Your task to perform on an android device: open app "Grab" (install if not already installed) and enter user name: "interspersion@gmail.com" and password: "aristocrats" Image 0: 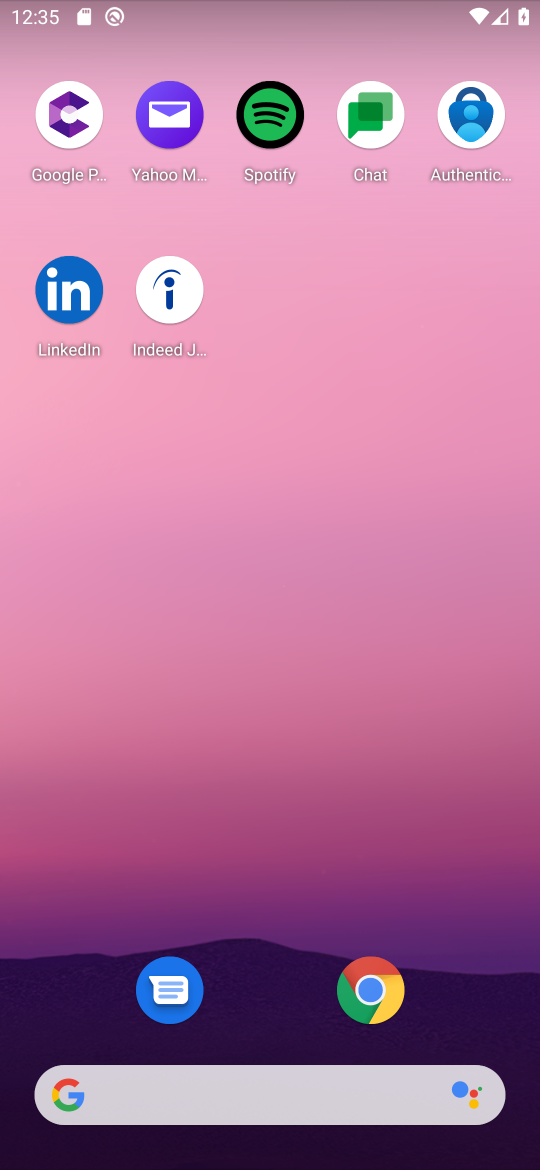
Step 0: drag from (276, 749) to (286, 251)
Your task to perform on an android device: open app "Grab" (install if not already installed) and enter user name: "interspersion@gmail.com" and password: "aristocrats" Image 1: 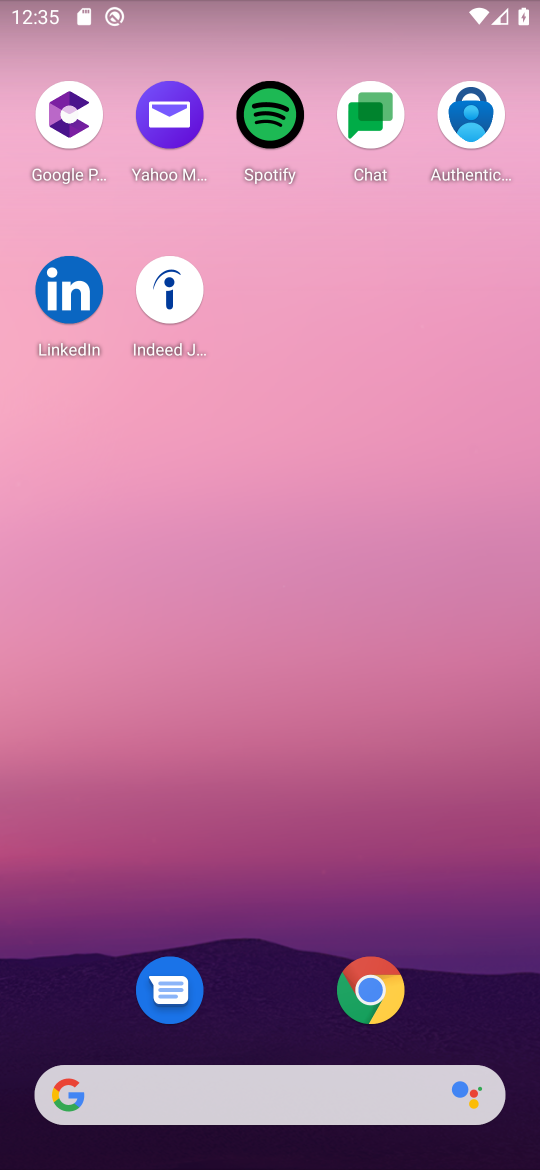
Step 1: drag from (285, 921) to (256, 174)
Your task to perform on an android device: open app "Grab" (install if not already installed) and enter user name: "interspersion@gmail.com" and password: "aristocrats" Image 2: 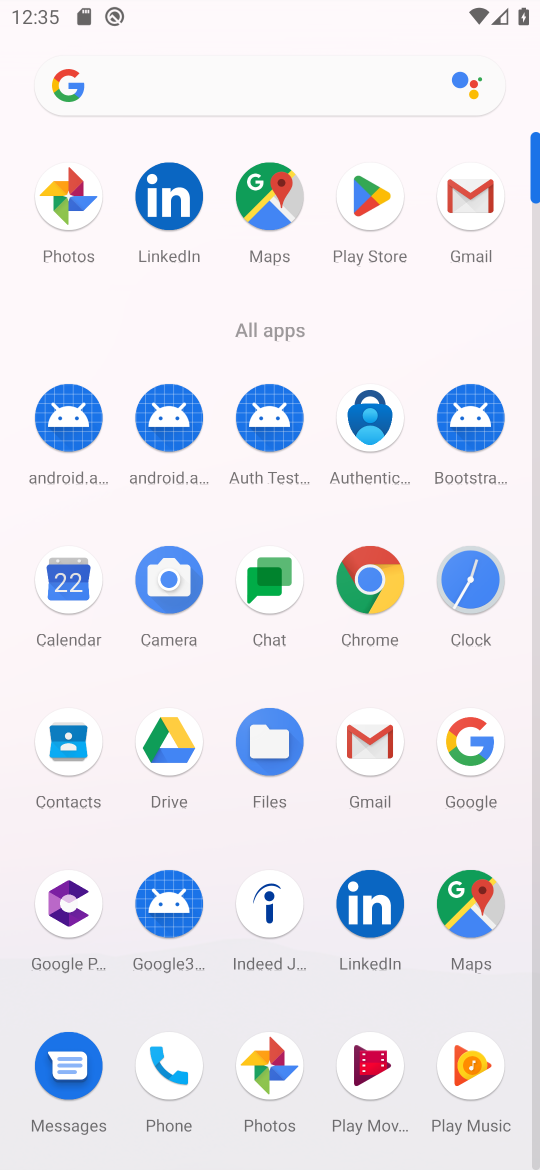
Step 2: click (370, 236)
Your task to perform on an android device: open app "Grab" (install if not already installed) and enter user name: "interspersion@gmail.com" and password: "aristocrats" Image 3: 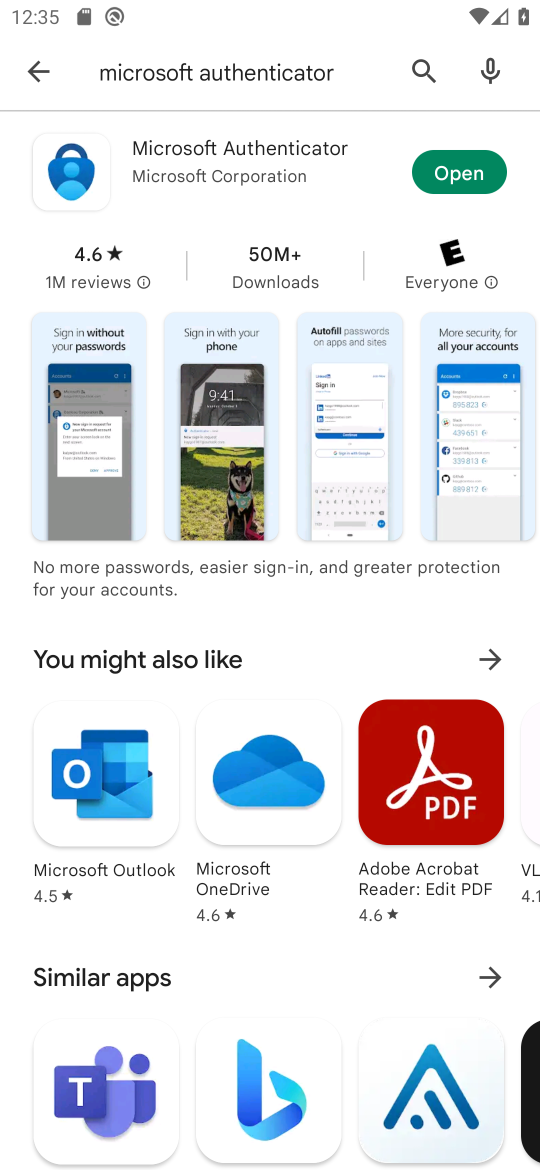
Step 3: click (423, 80)
Your task to perform on an android device: open app "Grab" (install if not already installed) and enter user name: "interspersion@gmail.com" and password: "aristocrats" Image 4: 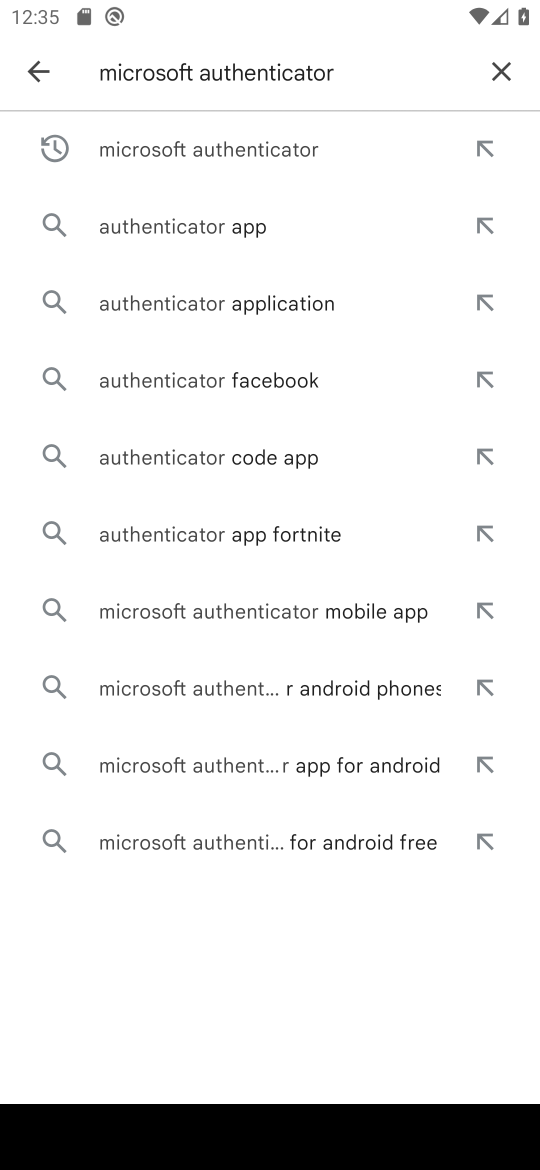
Step 4: click (500, 73)
Your task to perform on an android device: open app "Grab" (install if not already installed) and enter user name: "interspersion@gmail.com" and password: "aristocrats" Image 5: 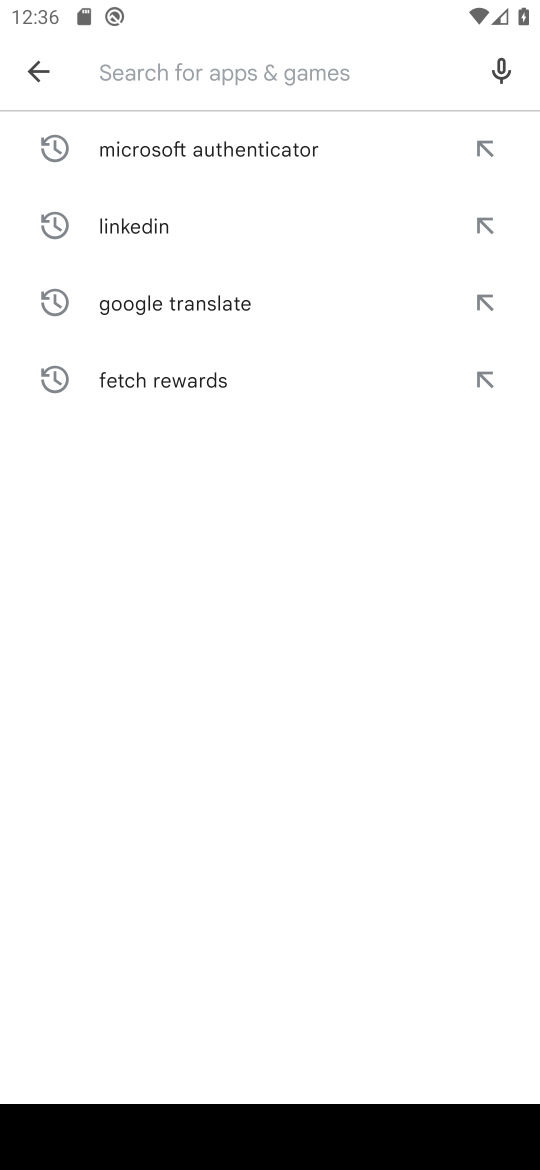
Step 5: type "Grab"
Your task to perform on an android device: open app "Grab" (install if not already installed) and enter user name: "interspersion@gmail.com" and password: "aristocrats" Image 6: 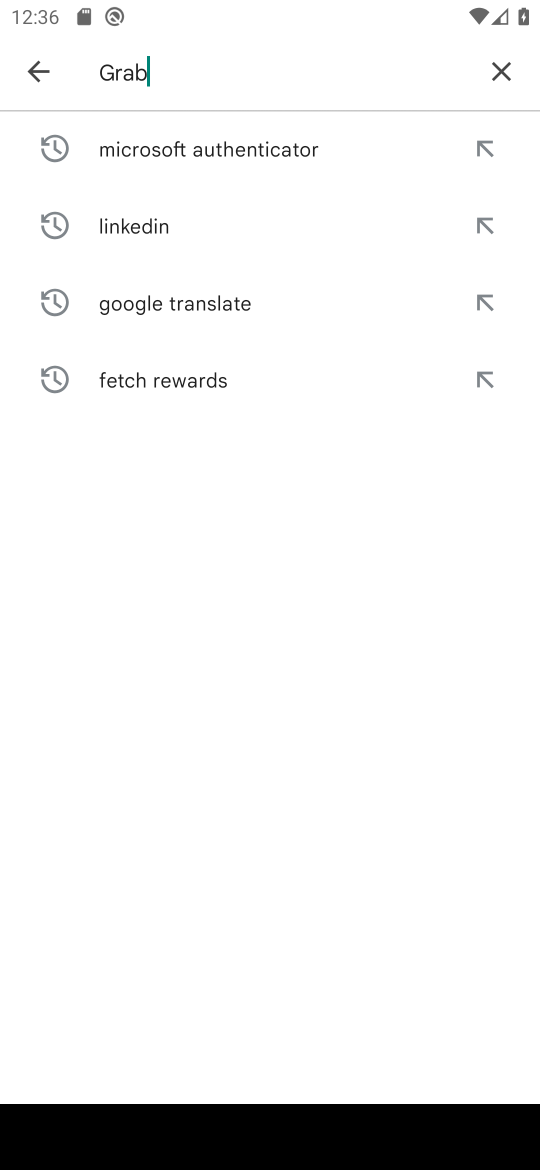
Step 6: type ""
Your task to perform on an android device: open app "Grab" (install if not already installed) and enter user name: "interspersion@gmail.com" and password: "aristocrats" Image 7: 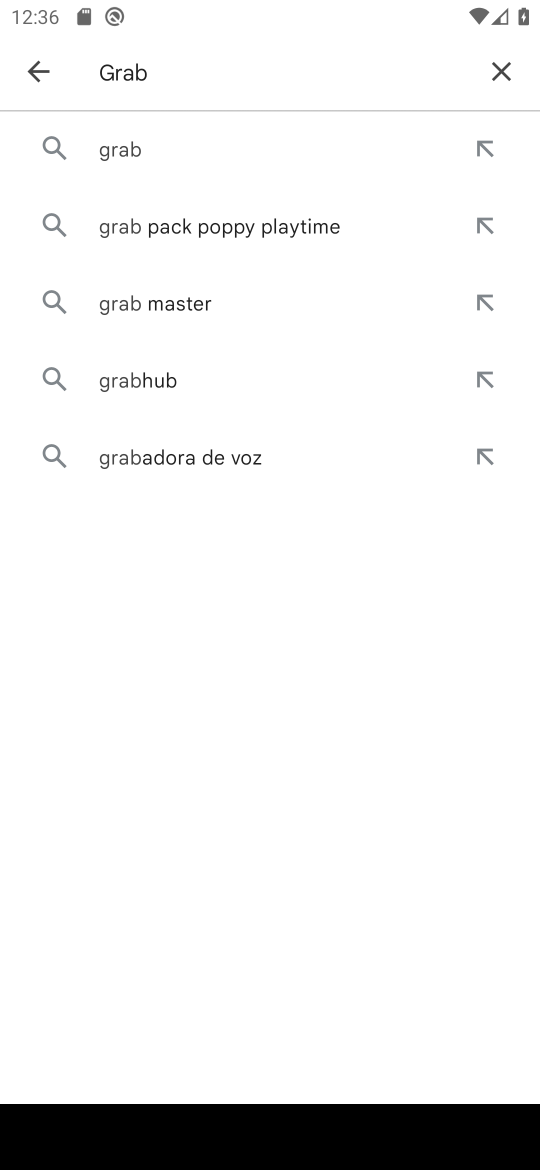
Step 7: click (135, 151)
Your task to perform on an android device: open app "Grab" (install if not already installed) and enter user name: "interspersion@gmail.com" and password: "aristocrats" Image 8: 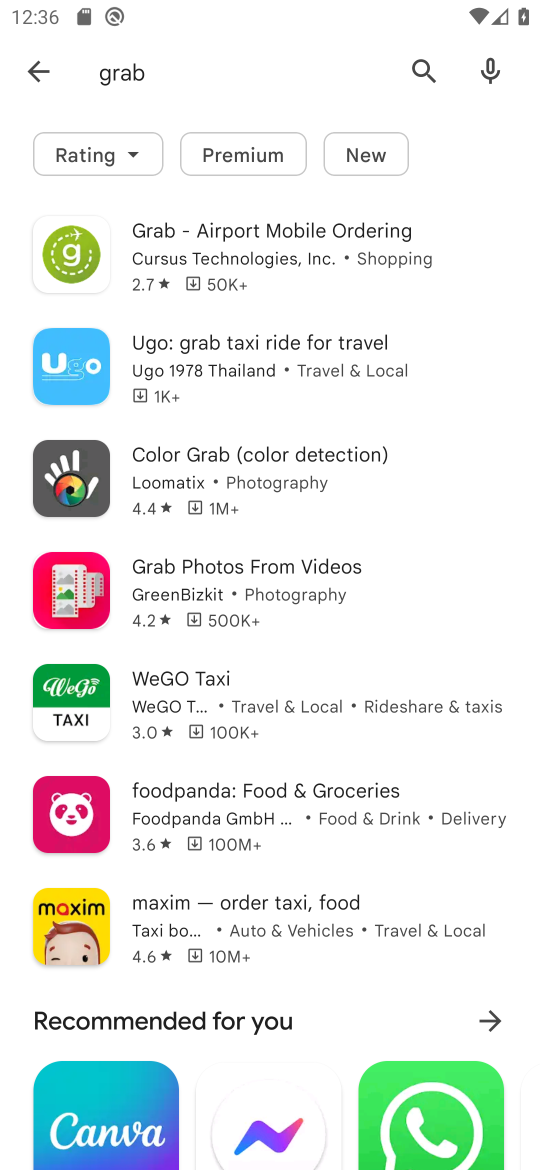
Step 8: click (289, 225)
Your task to perform on an android device: open app "Grab" (install if not already installed) and enter user name: "interspersion@gmail.com" and password: "aristocrats" Image 9: 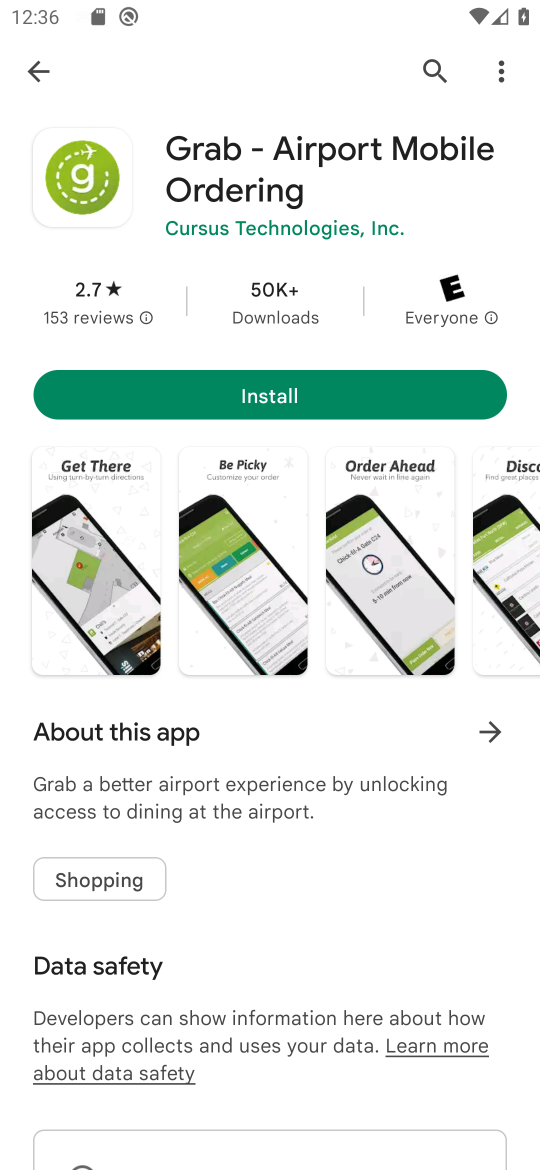
Step 9: click (345, 394)
Your task to perform on an android device: open app "Grab" (install if not already installed) and enter user name: "interspersion@gmail.com" and password: "aristocrats" Image 10: 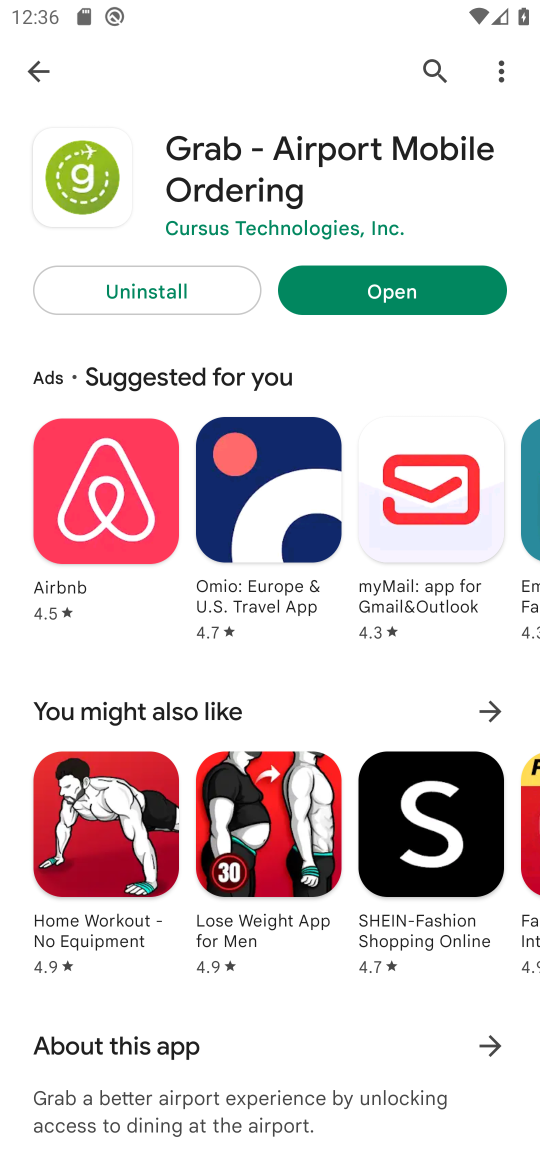
Step 10: click (380, 298)
Your task to perform on an android device: open app "Grab" (install if not already installed) and enter user name: "interspersion@gmail.com" and password: "aristocrats" Image 11: 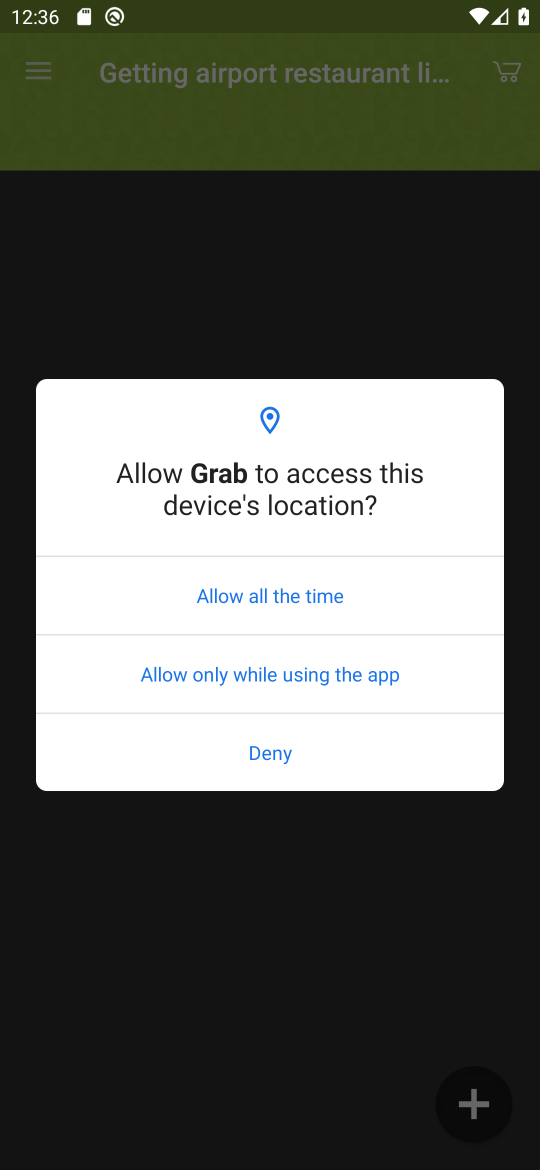
Step 11: task complete